Your task to perform on an android device: remove spam from my inbox in the gmail app Image 0: 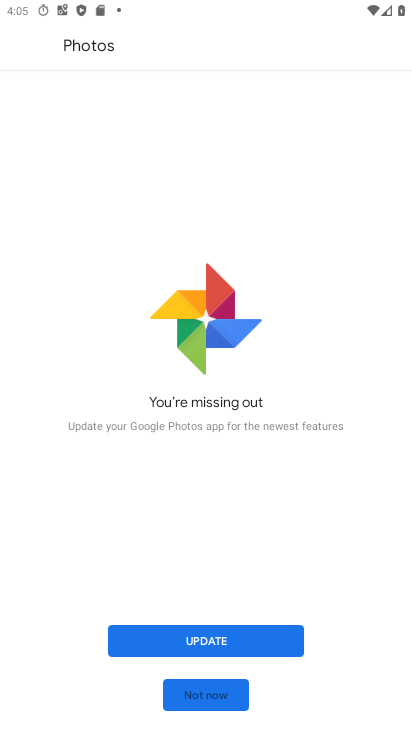
Step 0: press home button
Your task to perform on an android device: remove spam from my inbox in the gmail app Image 1: 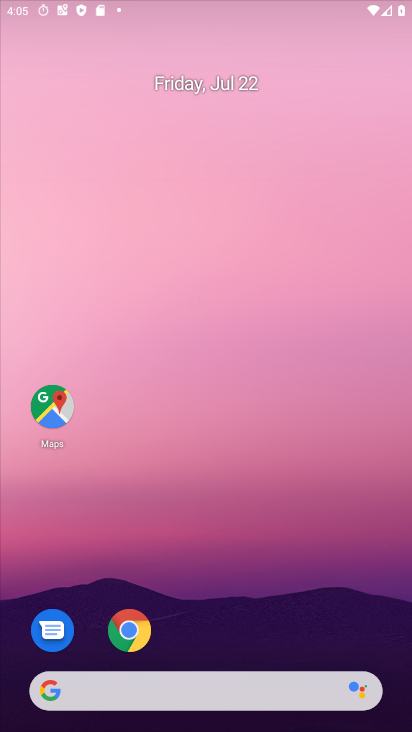
Step 1: drag from (259, 703) to (264, 37)
Your task to perform on an android device: remove spam from my inbox in the gmail app Image 2: 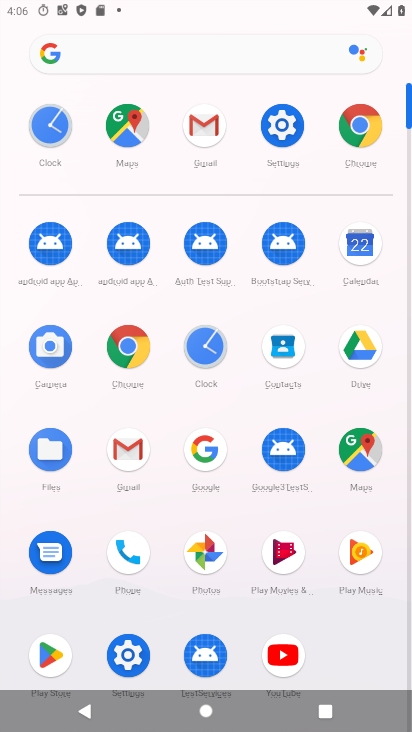
Step 2: click (143, 443)
Your task to perform on an android device: remove spam from my inbox in the gmail app Image 3: 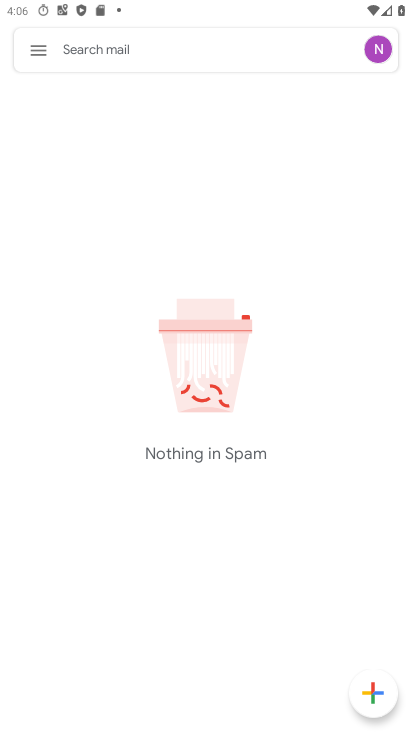
Step 3: click (39, 48)
Your task to perform on an android device: remove spam from my inbox in the gmail app Image 4: 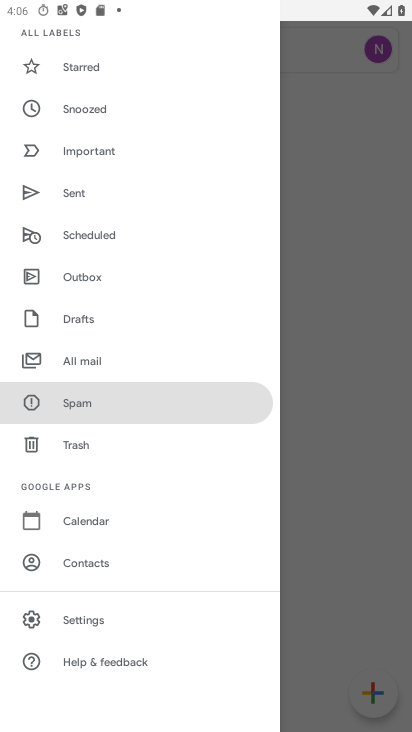
Step 4: click (81, 397)
Your task to perform on an android device: remove spam from my inbox in the gmail app Image 5: 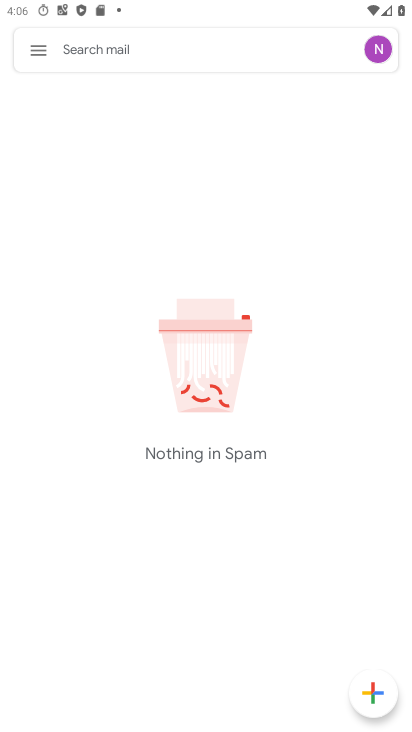
Step 5: task complete